Your task to perform on an android device: Show me some nice wallpapers for my laptop Image 0: 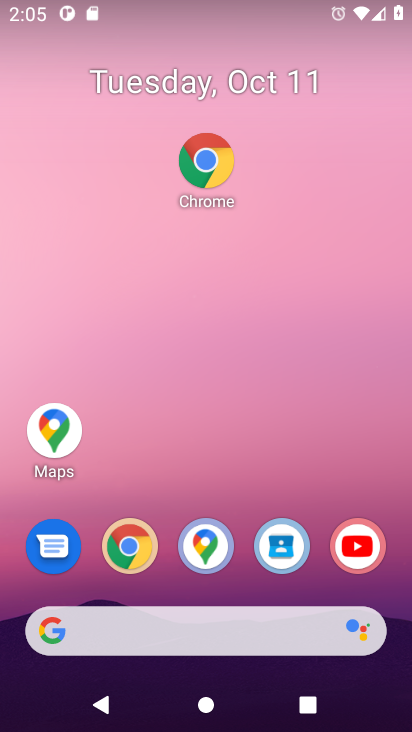
Step 0: click (126, 559)
Your task to perform on an android device: Show me some nice wallpapers for my laptop Image 1: 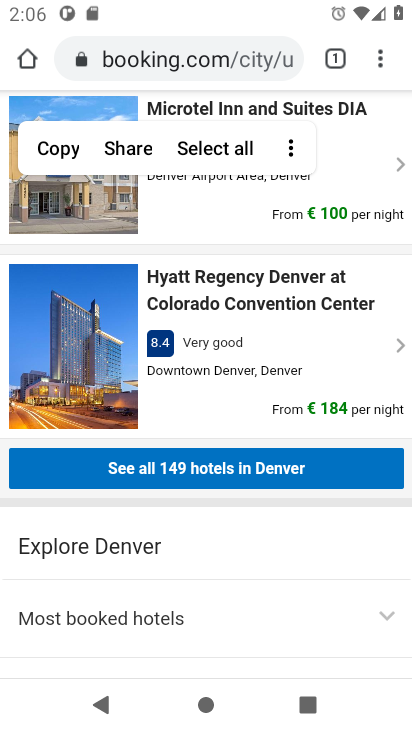
Step 1: click (229, 59)
Your task to perform on an android device: Show me some nice wallpapers for my laptop Image 2: 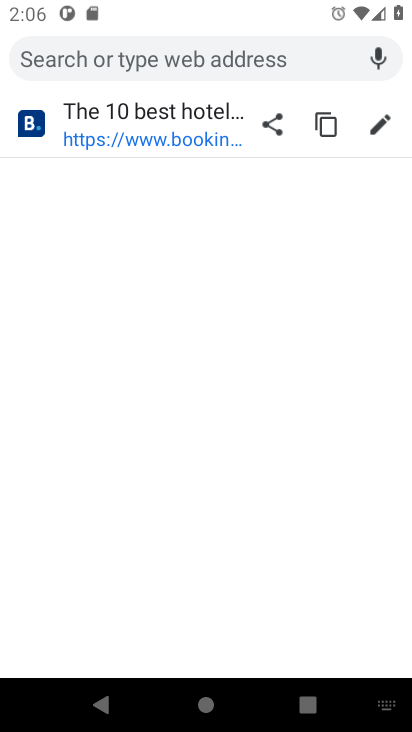
Step 2: type "nice wallpapers for laptop"
Your task to perform on an android device: Show me some nice wallpapers for my laptop Image 3: 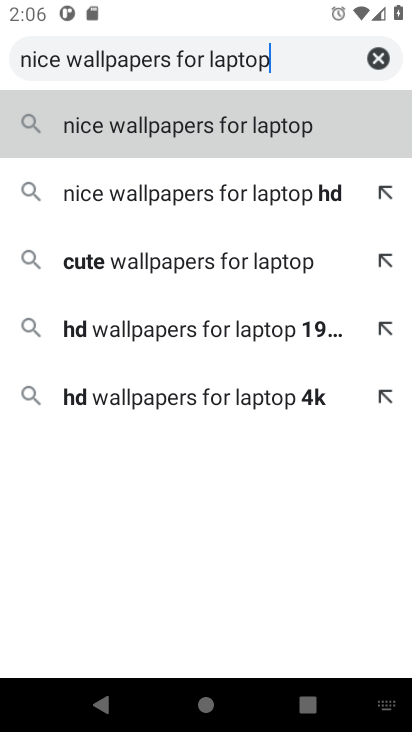
Step 3: type ""
Your task to perform on an android device: Show me some nice wallpapers for my laptop Image 4: 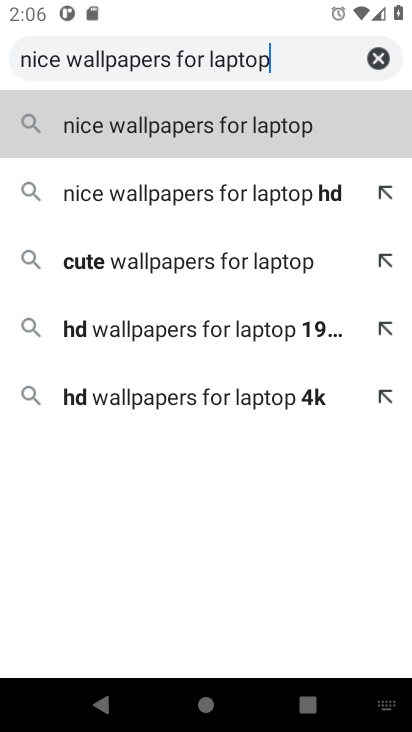
Step 4: press enter
Your task to perform on an android device: Show me some nice wallpapers for my laptop Image 5: 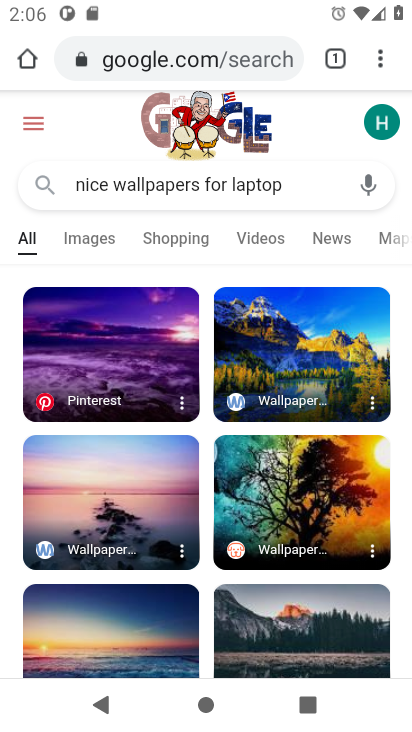
Step 5: task complete